Your task to perform on an android device: Go to Android settings Image 0: 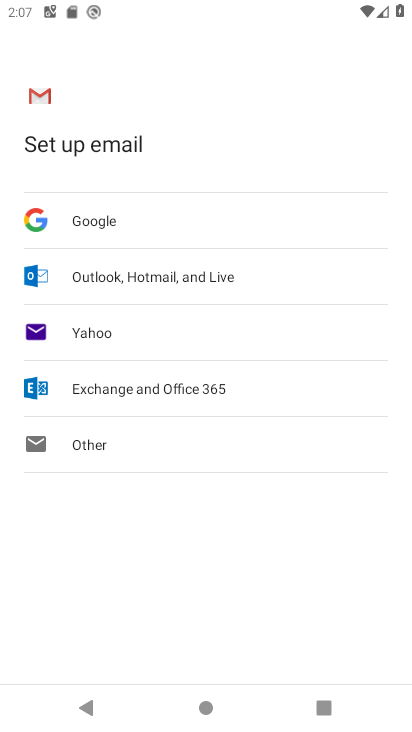
Step 0: press home button
Your task to perform on an android device: Go to Android settings Image 1: 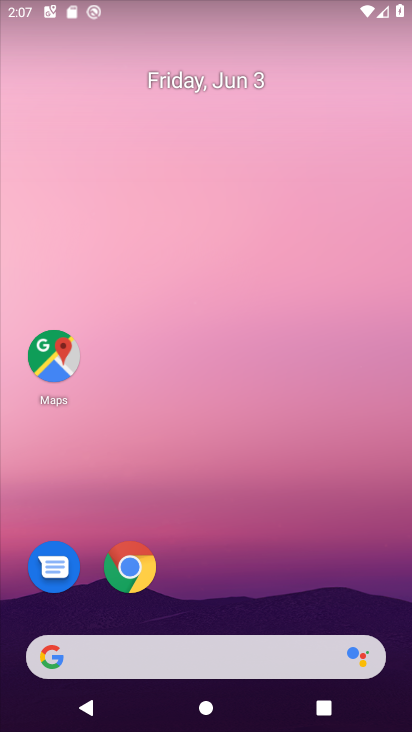
Step 1: drag from (218, 599) to (223, 153)
Your task to perform on an android device: Go to Android settings Image 2: 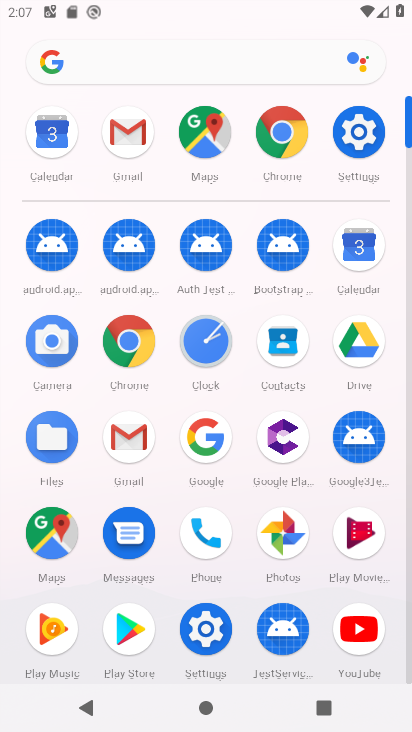
Step 2: click (363, 120)
Your task to perform on an android device: Go to Android settings Image 3: 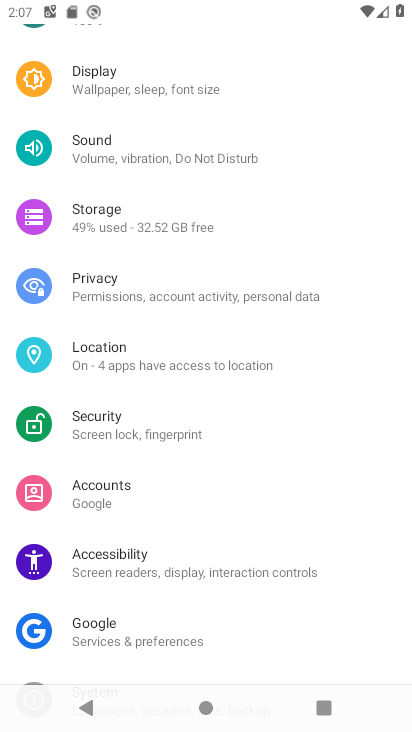
Step 3: task complete